Your task to perform on an android device: Go to internet settings Image 0: 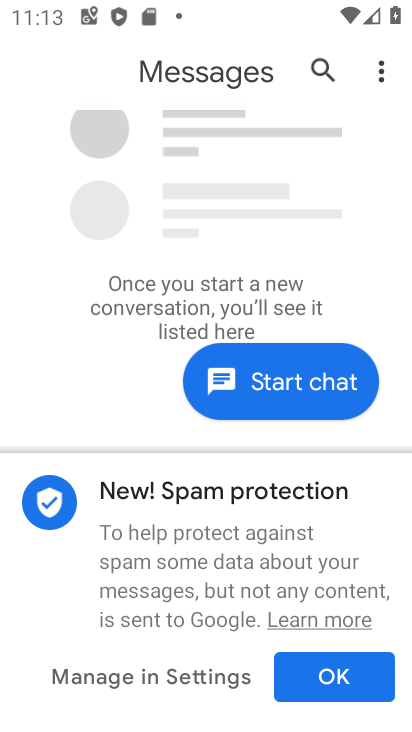
Step 0: press home button
Your task to perform on an android device: Go to internet settings Image 1: 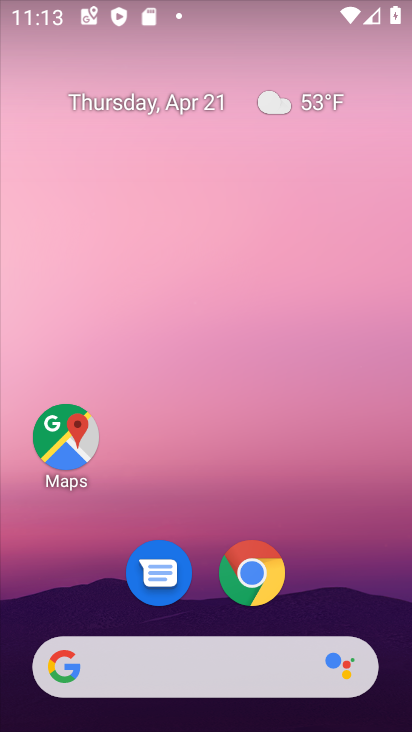
Step 1: drag from (328, 589) to (375, 83)
Your task to perform on an android device: Go to internet settings Image 2: 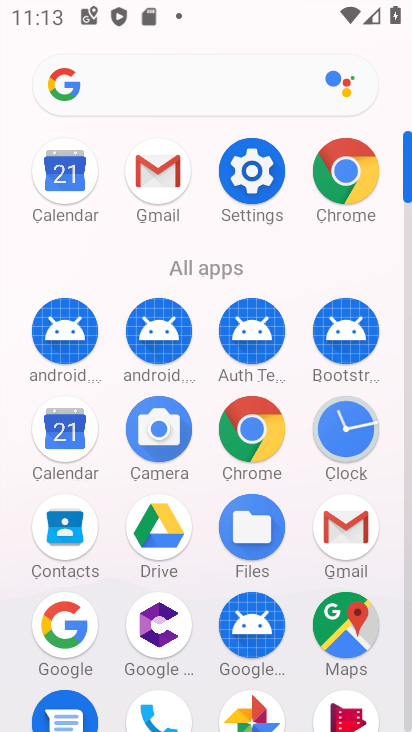
Step 2: click (251, 171)
Your task to perform on an android device: Go to internet settings Image 3: 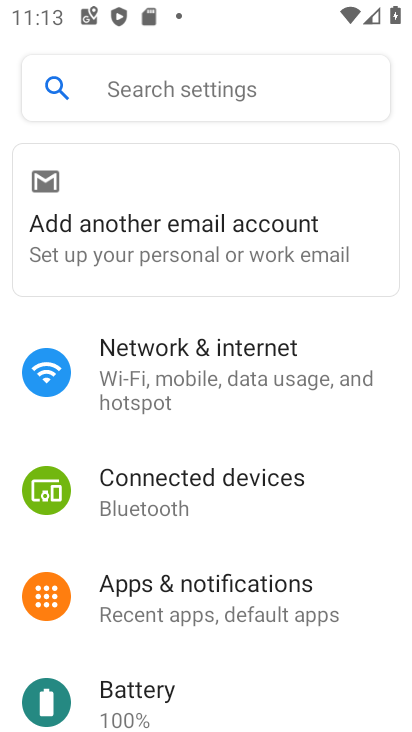
Step 3: click (197, 354)
Your task to perform on an android device: Go to internet settings Image 4: 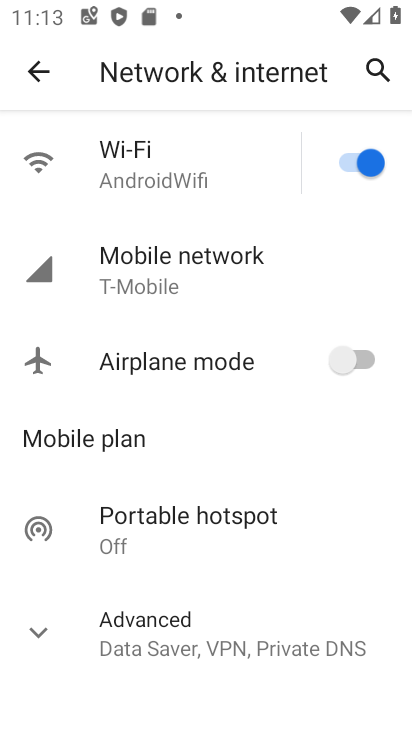
Step 4: task complete